Your task to perform on an android device: Open calendar and show me the first week of next month Image 0: 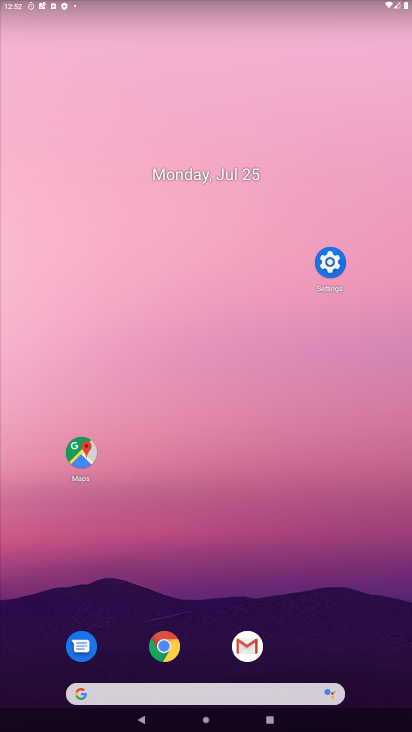
Step 0: drag from (260, 687) to (226, 223)
Your task to perform on an android device: Open calendar and show me the first week of next month Image 1: 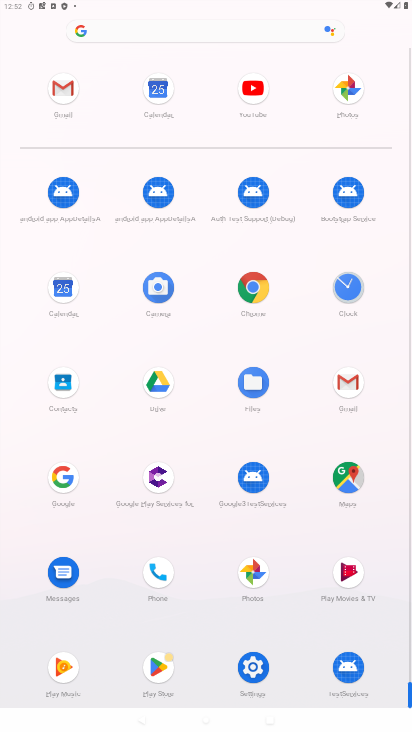
Step 1: click (72, 294)
Your task to perform on an android device: Open calendar and show me the first week of next month Image 2: 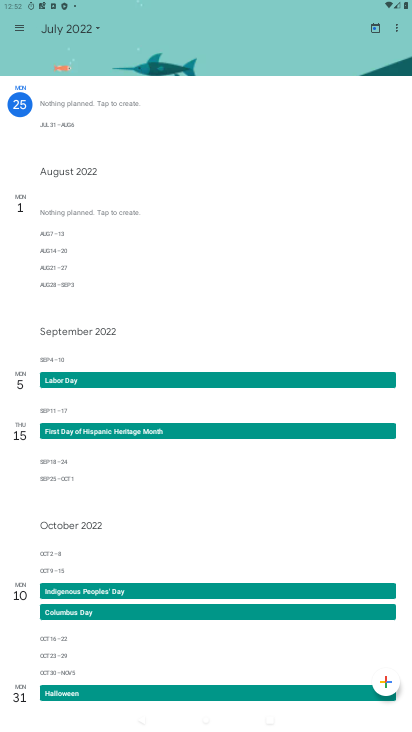
Step 2: click (26, 19)
Your task to perform on an android device: Open calendar and show me the first week of next month Image 3: 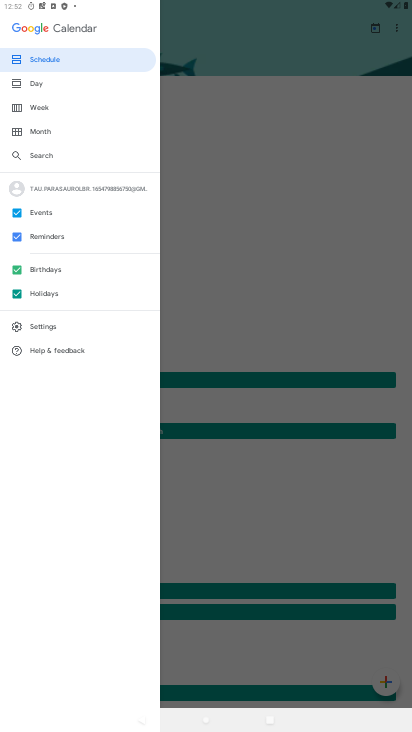
Step 3: click (41, 129)
Your task to perform on an android device: Open calendar and show me the first week of next month Image 4: 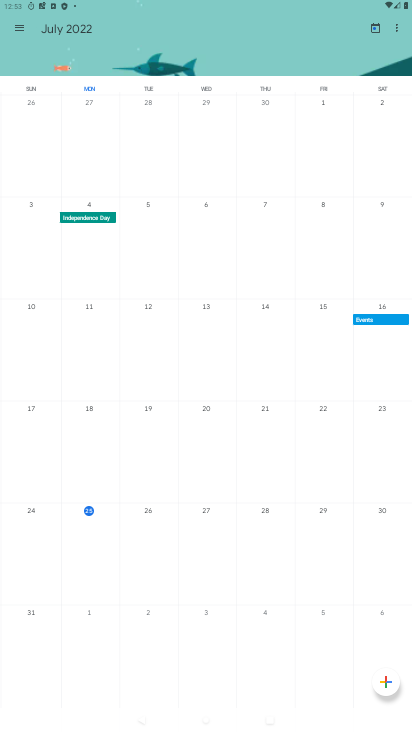
Step 4: drag from (363, 456) to (12, 473)
Your task to perform on an android device: Open calendar and show me the first week of next month Image 5: 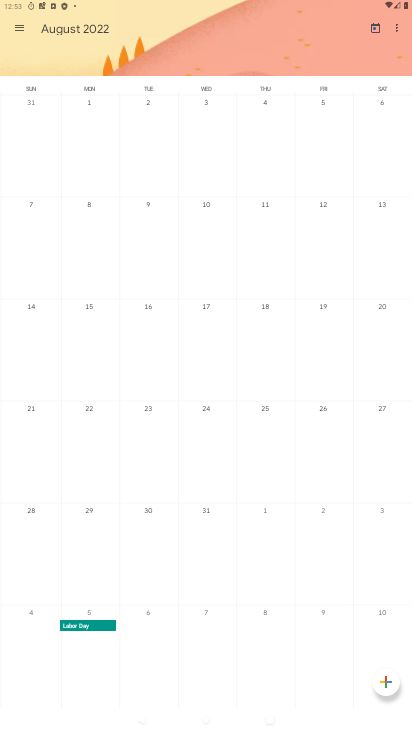
Step 5: click (77, 126)
Your task to perform on an android device: Open calendar and show me the first week of next month Image 6: 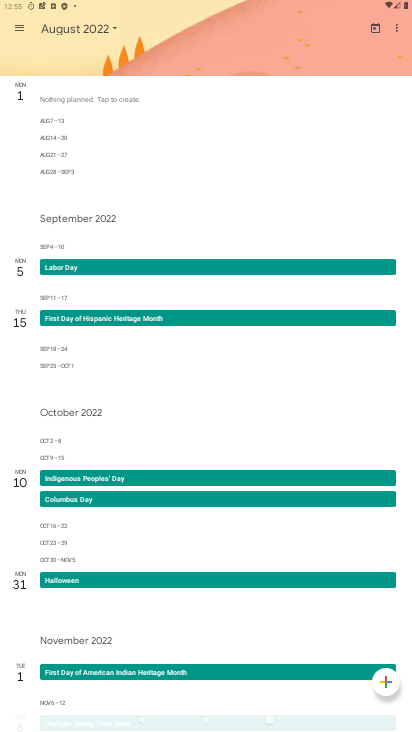
Step 6: task complete